Your task to perform on an android device: Go to Wikipedia Image 0: 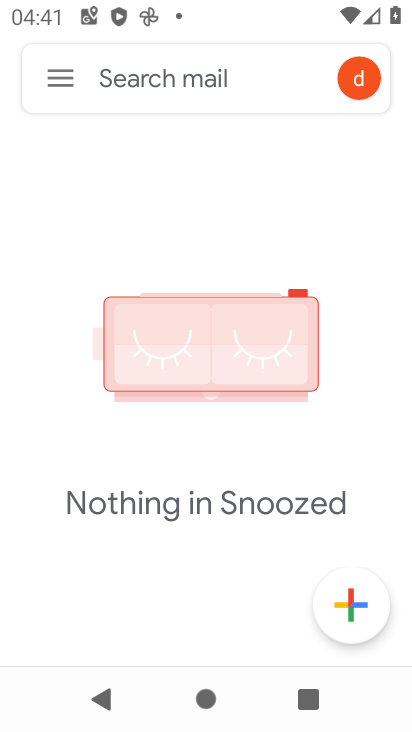
Step 0: press home button
Your task to perform on an android device: Go to Wikipedia Image 1: 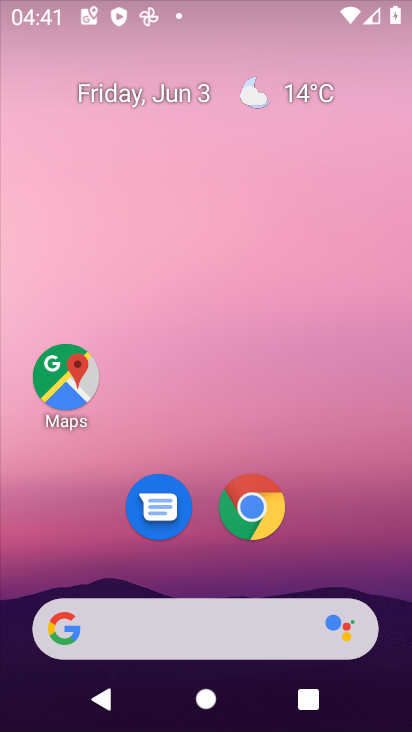
Step 1: click (210, 626)
Your task to perform on an android device: Go to Wikipedia Image 2: 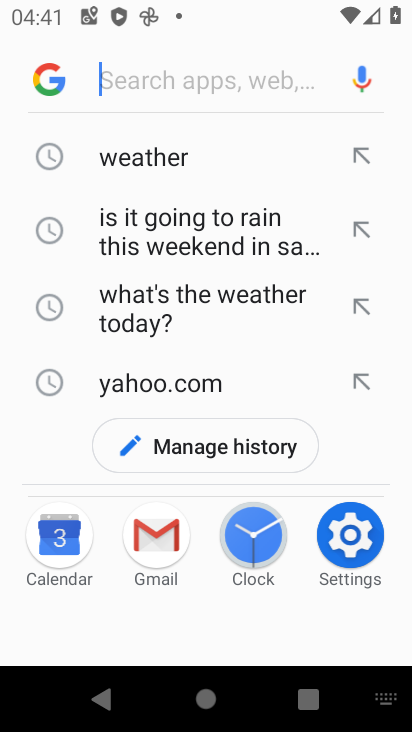
Step 2: type "Wikipedia"
Your task to perform on an android device: Go to Wikipedia Image 3: 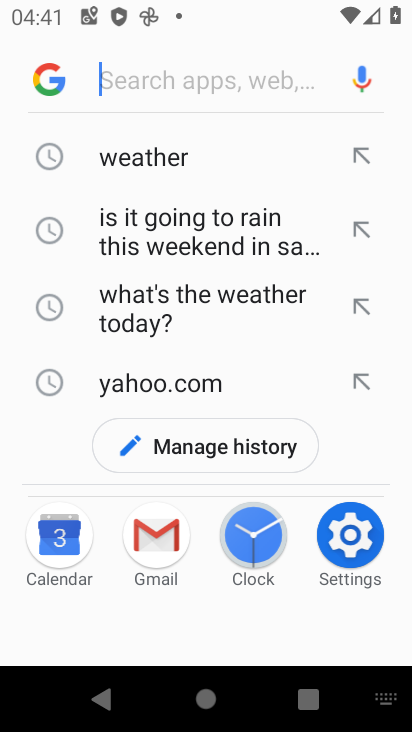
Step 3: click (158, 79)
Your task to perform on an android device: Go to Wikipedia Image 4: 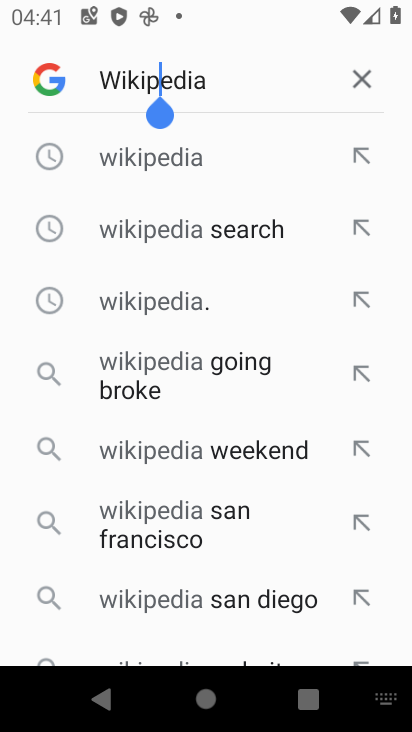
Step 4: click (174, 157)
Your task to perform on an android device: Go to Wikipedia Image 5: 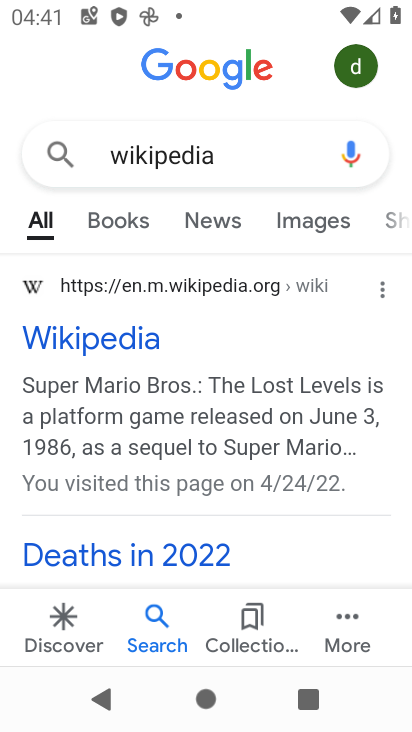
Step 5: click (47, 336)
Your task to perform on an android device: Go to Wikipedia Image 6: 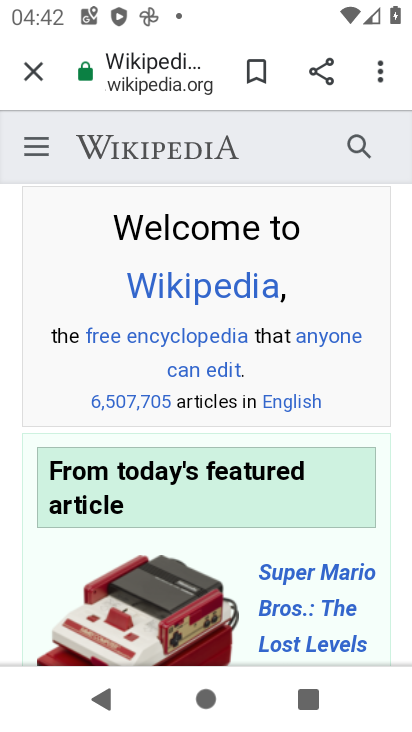
Step 6: task complete